Your task to perform on an android device: open wifi settings Image 0: 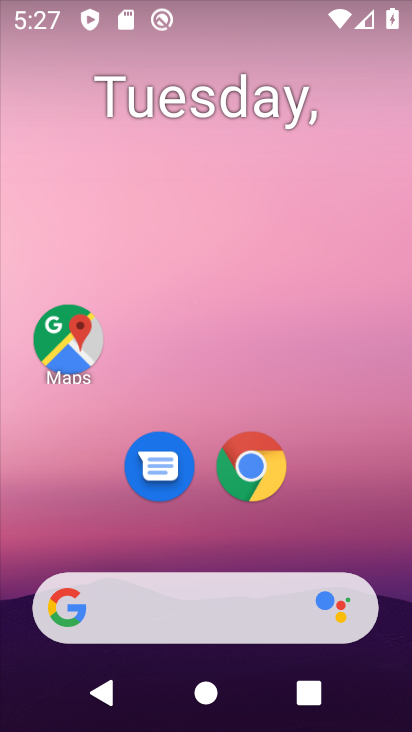
Step 0: press home button
Your task to perform on an android device: open wifi settings Image 1: 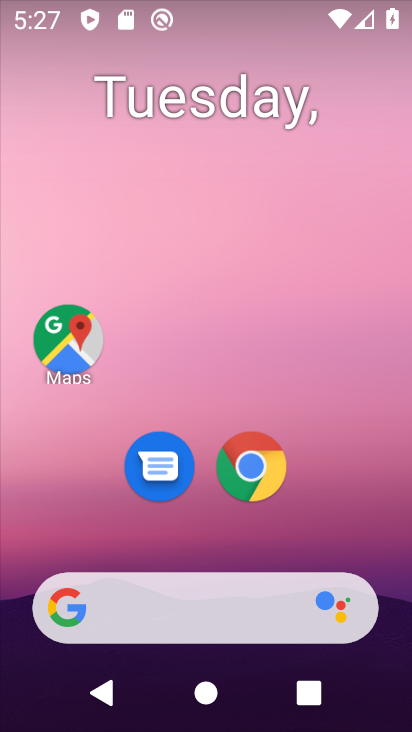
Step 1: task complete